Your task to perform on an android device: search for starred emails in the gmail app Image 0: 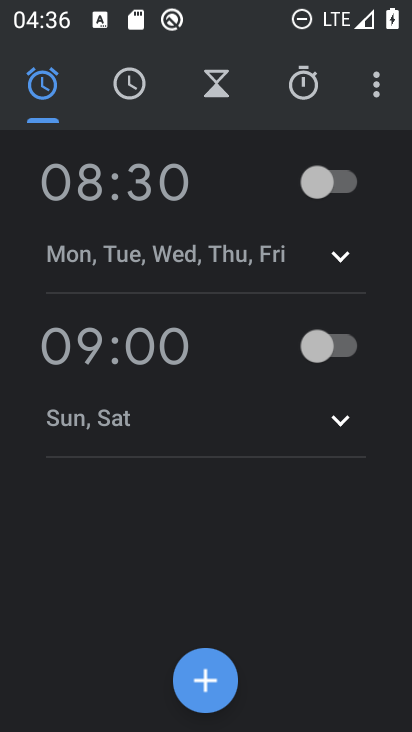
Step 0: press home button
Your task to perform on an android device: search for starred emails in the gmail app Image 1: 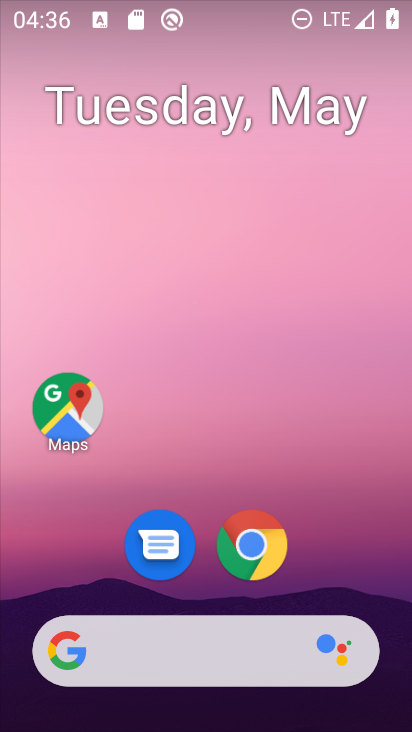
Step 1: drag from (384, 607) to (323, 129)
Your task to perform on an android device: search for starred emails in the gmail app Image 2: 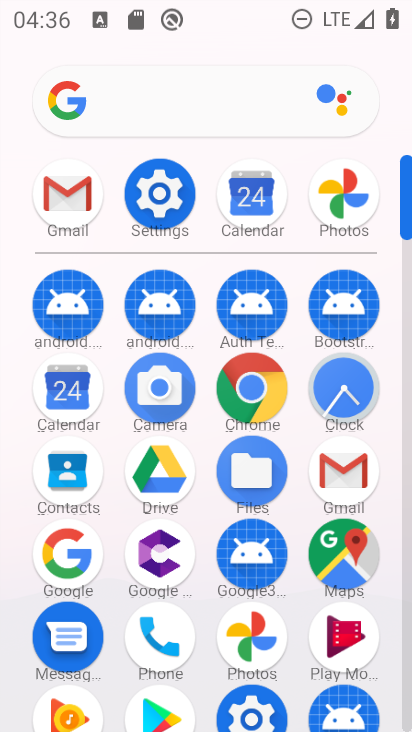
Step 2: click (405, 705)
Your task to perform on an android device: search for starred emails in the gmail app Image 3: 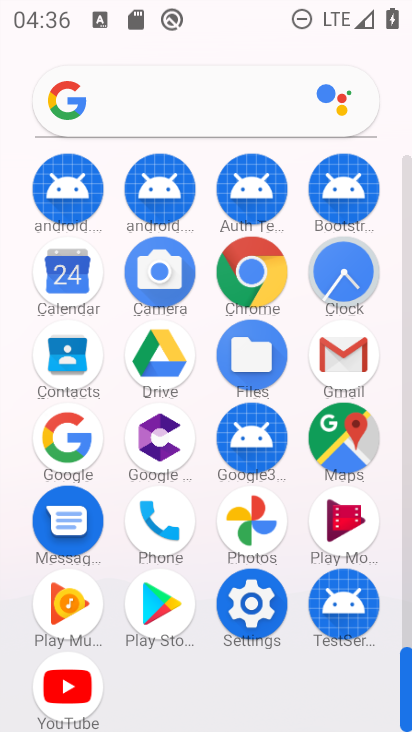
Step 3: click (339, 353)
Your task to perform on an android device: search for starred emails in the gmail app Image 4: 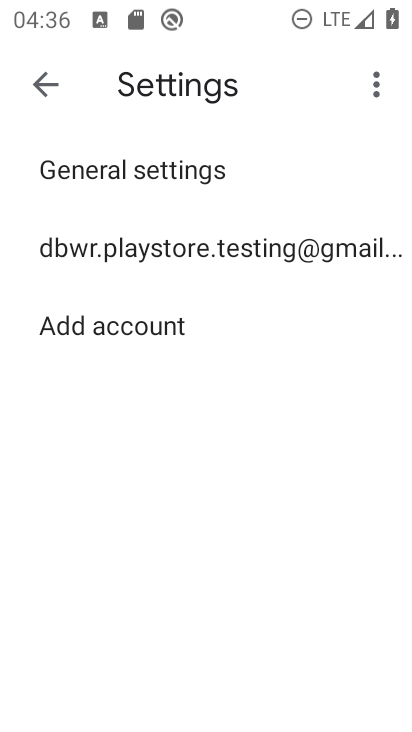
Step 4: press back button
Your task to perform on an android device: search for starred emails in the gmail app Image 5: 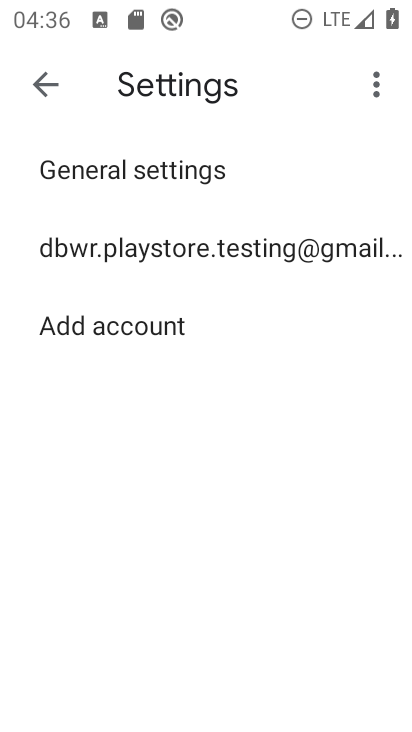
Step 5: press back button
Your task to perform on an android device: search for starred emails in the gmail app Image 6: 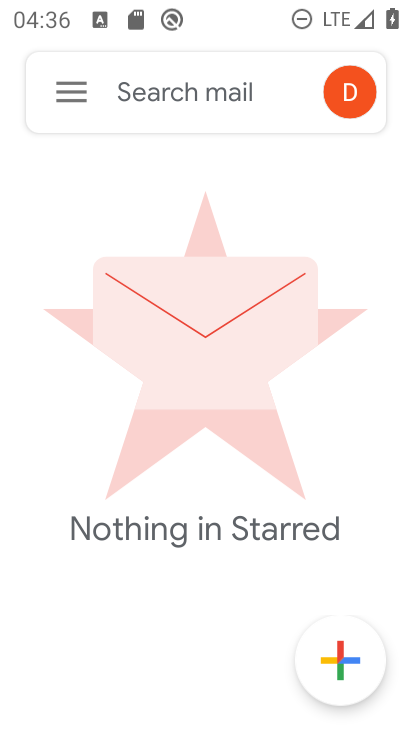
Step 6: click (65, 87)
Your task to perform on an android device: search for starred emails in the gmail app Image 7: 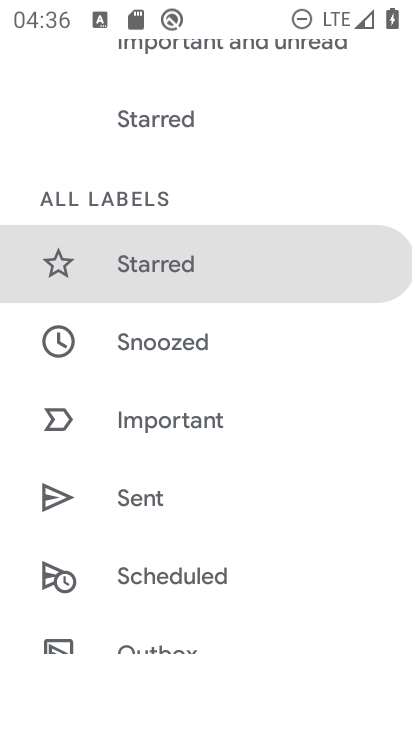
Step 7: click (155, 268)
Your task to perform on an android device: search for starred emails in the gmail app Image 8: 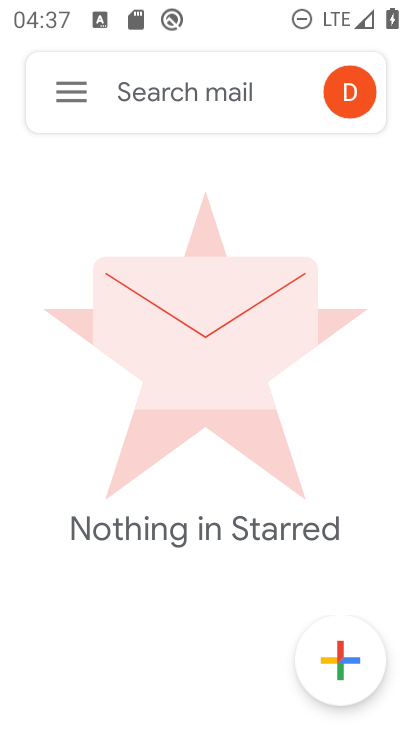
Step 8: task complete